Your task to perform on an android device: Open the calendar and show me this week's events? Image 0: 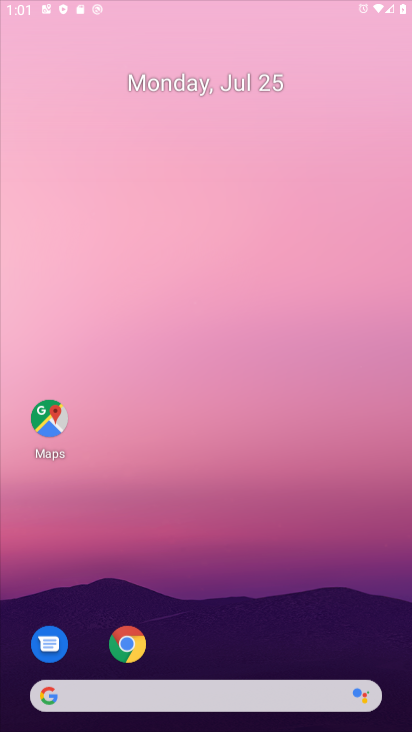
Step 0: drag from (376, 652) to (149, 109)
Your task to perform on an android device: Open the calendar and show me this week's events? Image 1: 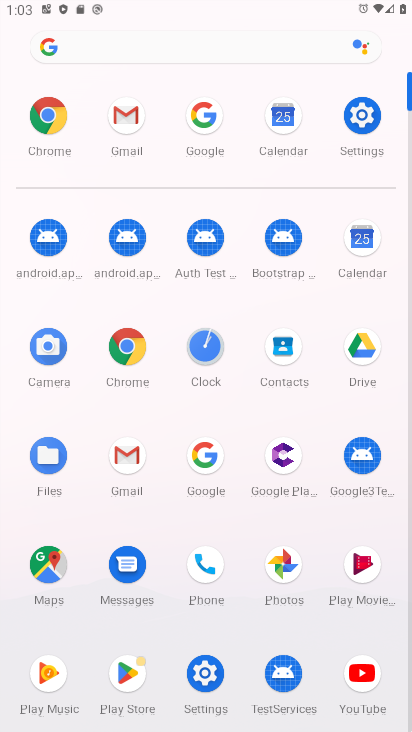
Step 1: click (360, 259)
Your task to perform on an android device: Open the calendar and show me this week's events? Image 2: 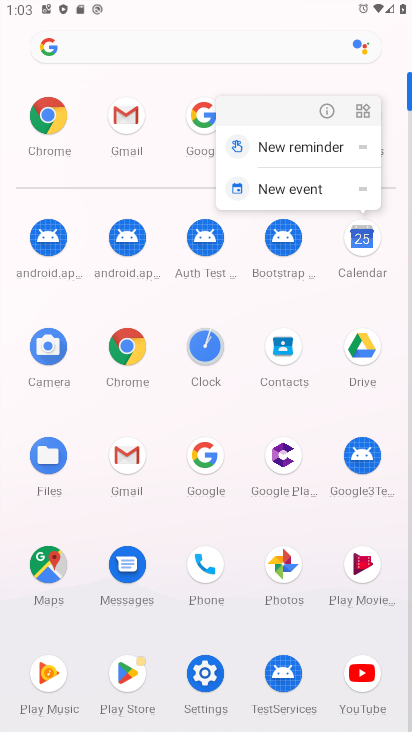
Step 2: click (358, 252)
Your task to perform on an android device: Open the calendar and show me this week's events? Image 3: 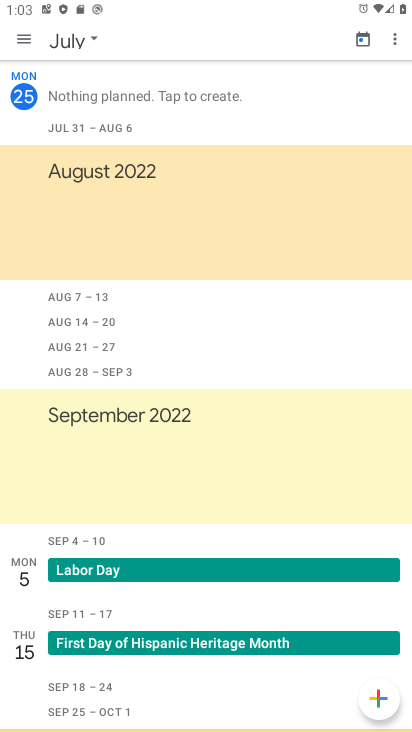
Step 3: task complete